Your task to perform on an android device: turn on translation in the chrome app Image 0: 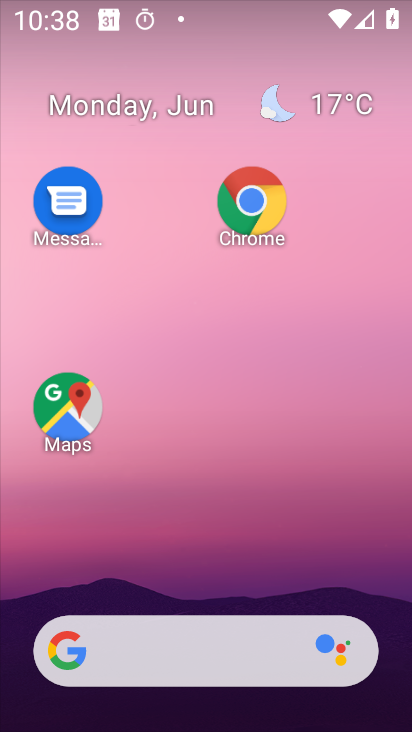
Step 0: drag from (191, 605) to (132, 36)
Your task to perform on an android device: turn on translation in the chrome app Image 1: 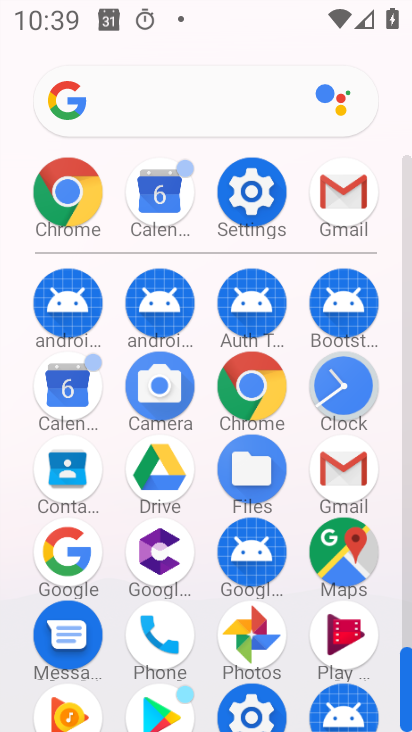
Step 1: click (63, 202)
Your task to perform on an android device: turn on translation in the chrome app Image 2: 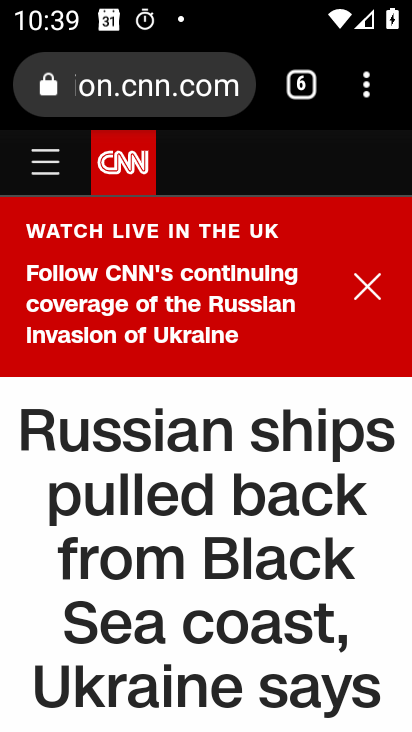
Step 2: click (365, 87)
Your task to perform on an android device: turn on translation in the chrome app Image 3: 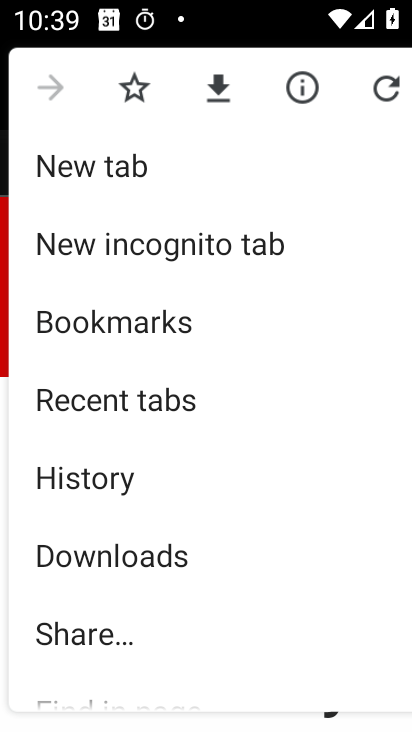
Step 3: drag from (297, 575) to (145, 25)
Your task to perform on an android device: turn on translation in the chrome app Image 4: 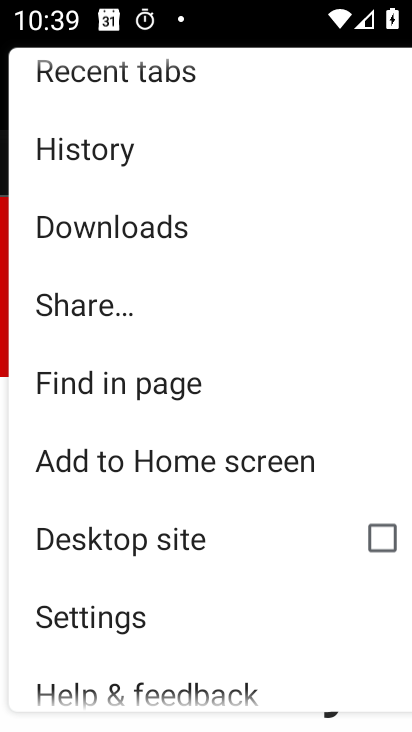
Step 4: drag from (142, 550) to (186, 142)
Your task to perform on an android device: turn on translation in the chrome app Image 5: 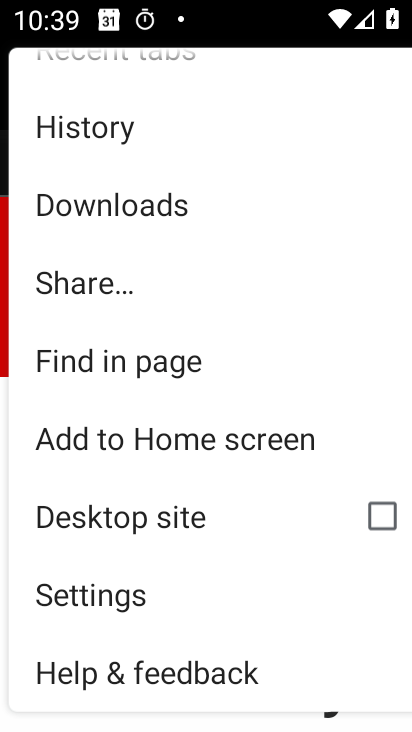
Step 5: click (165, 599)
Your task to perform on an android device: turn on translation in the chrome app Image 6: 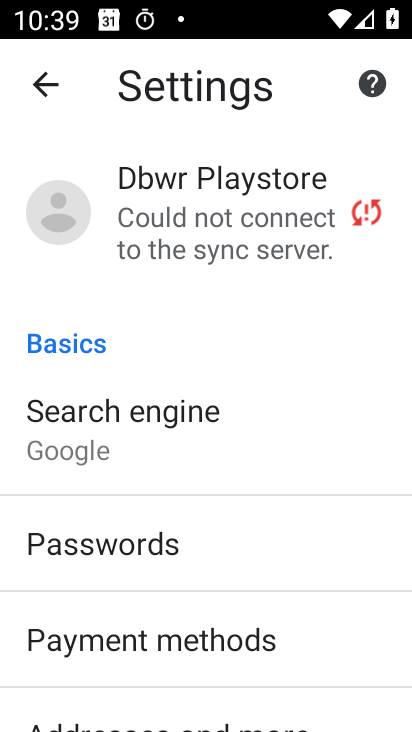
Step 6: drag from (140, 613) to (151, 95)
Your task to perform on an android device: turn on translation in the chrome app Image 7: 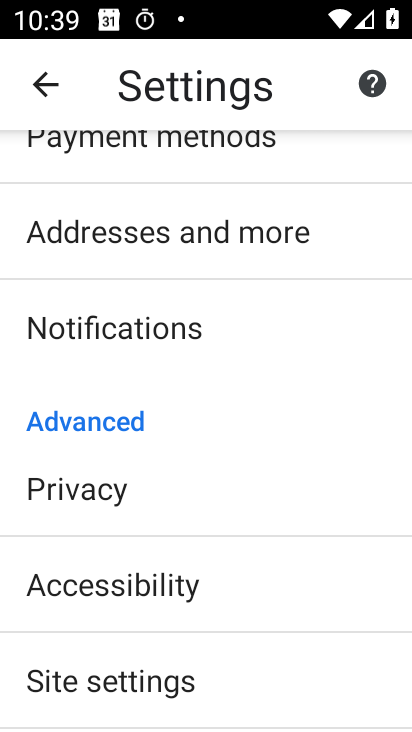
Step 7: drag from (255, 670) to (205, 143)
Your task to perform on an android device: turn on translation in the chrome app Image 8: 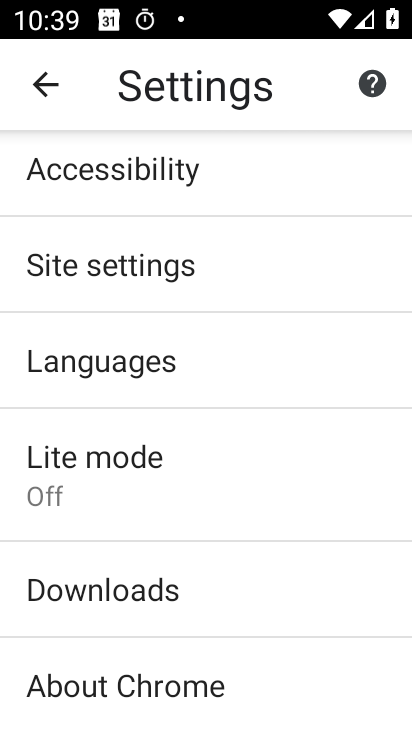
Step 8: click (140, 390)
Your task to perform on an android device: turn on translation in the chrome app Image 9: 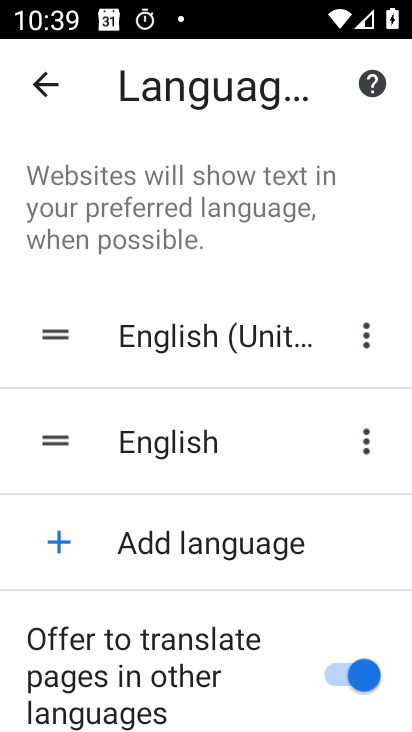
Step 9: task complete